Your task to perform on an android device: Open ESPN.com Image 0: 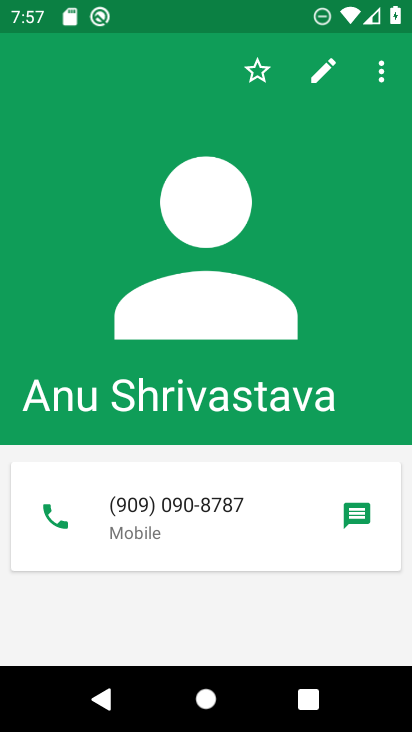
Step 0: press home button
Your task to perform on an android device: Open ESPN.com Image 1: 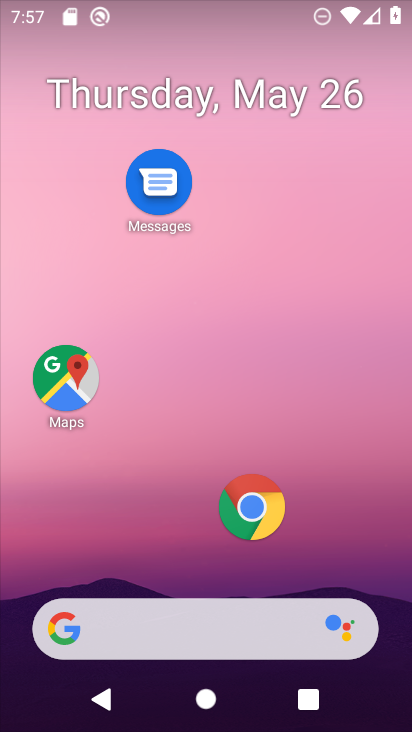
Step 1: click (265, 510)
Your task to perform on an android device: Open ESPN.com Image 2: 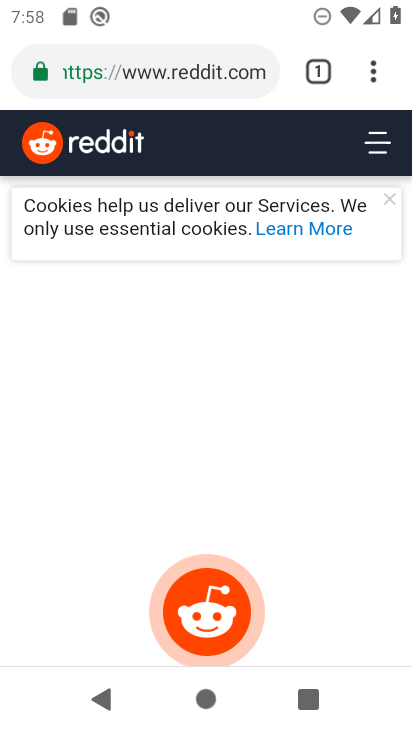
Step 2: press back button
Your task to perform on an android device: Open ESPN.com Image 3: 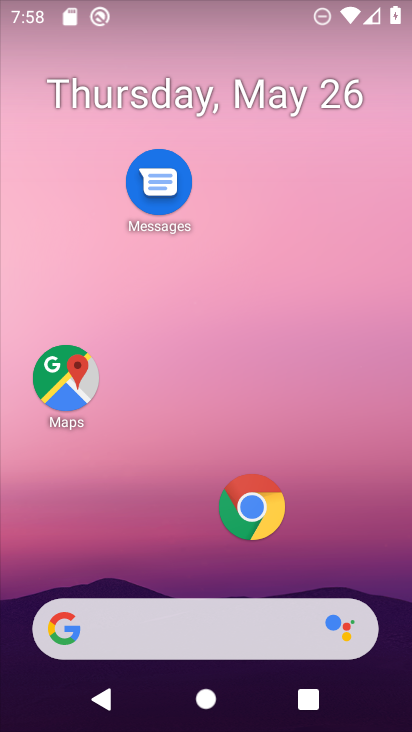
Step 3: click (243, 507)
Your task to perform on an android device: Open ESPN.com Image 4: 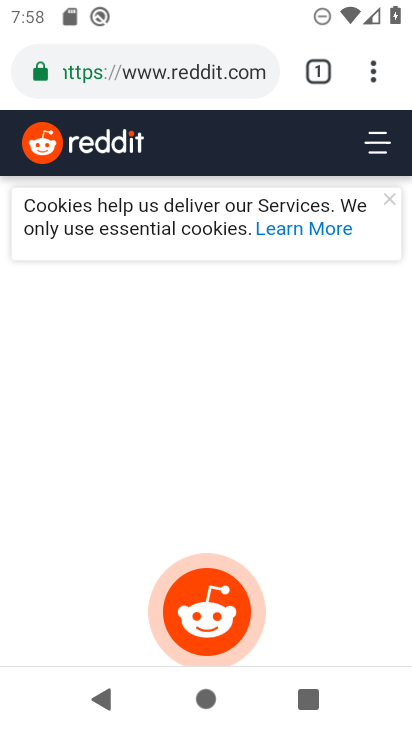
Step 4: click (210, 68)
Your task to perform on an android device: Open ESPN.com Image 5: 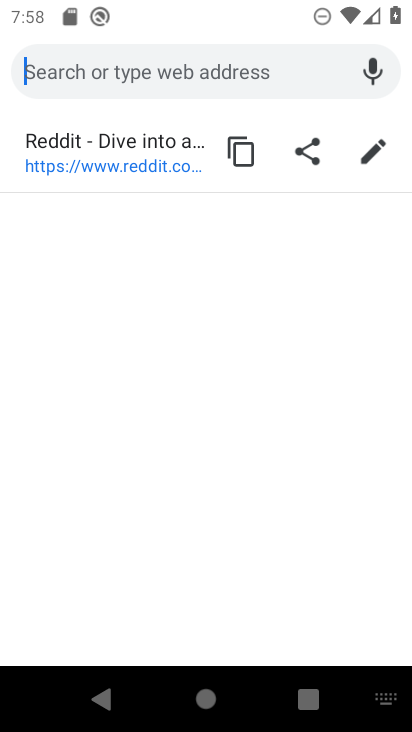
Step 5: type "www.espn.com"
Your task to perform on an android device: Open ESPN.com Image 6: 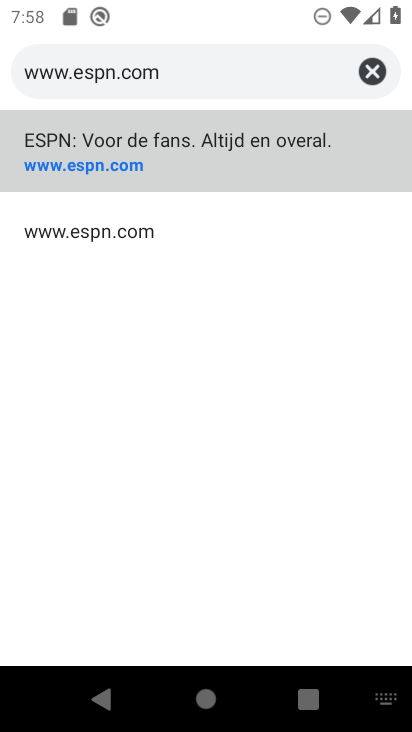
Step 6: click (129, 150)
Your task to perform on an android device: Open ESPN.com Image 7: 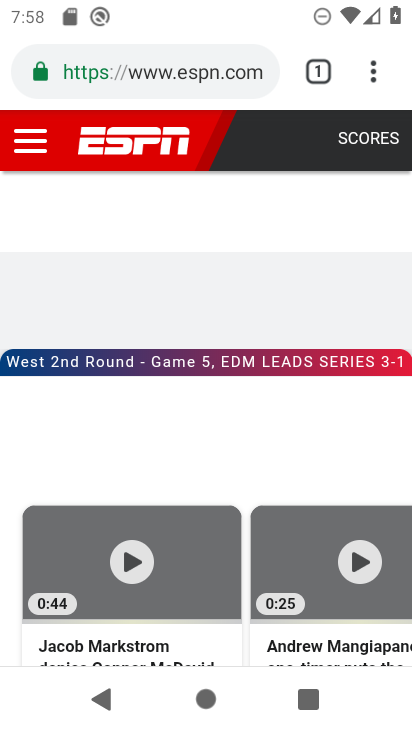
Step 7: task complete